Your task to perform on an android device: turn smart compose on in the gmail app Image 0: 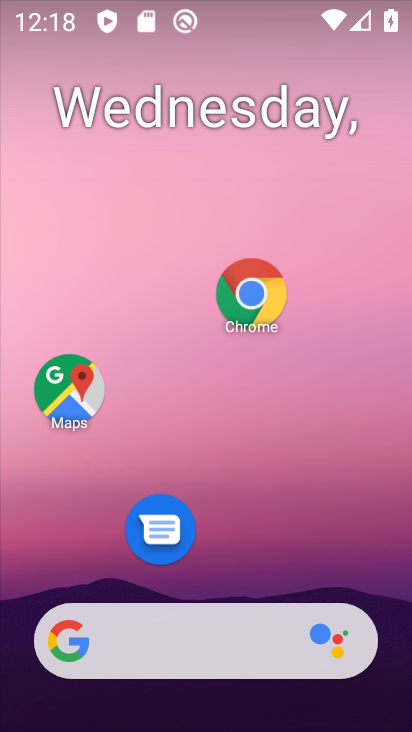
Step 0: drag from (201, 618) to (264, 161)
Your task to perform on an android device: turn smart compose on in the gmail app Image 1: 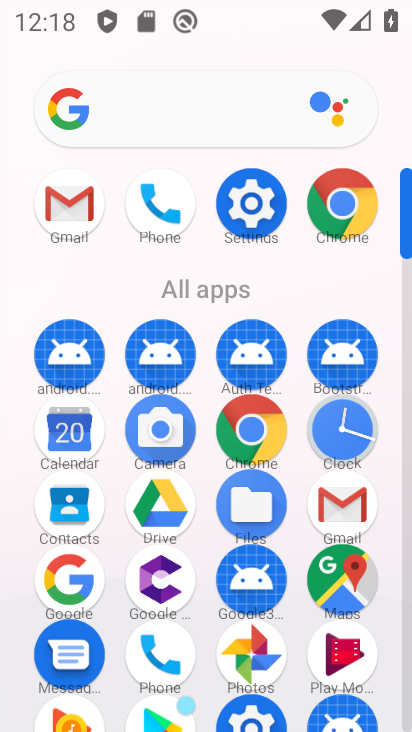
Step 1: click (408, 520)
Your task to perform on an android device: turn smart compose on in the gmail app Image 2: 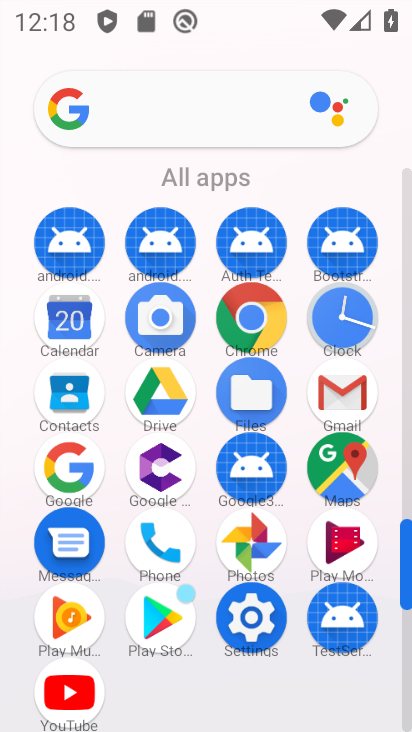
Step 2: click (343, 376)
Your task to perform on an android device: turn smart compose on in the gmail app Image 3: 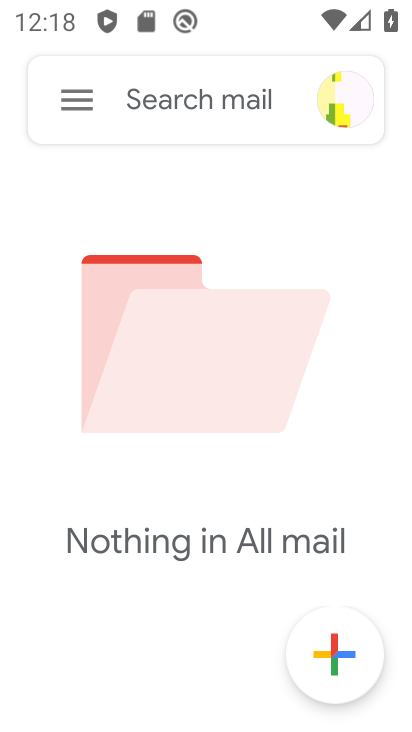
Step 3: click (77, 92)
Your task to perform on an android device: turn smart compose on in the gmail app Image 4: 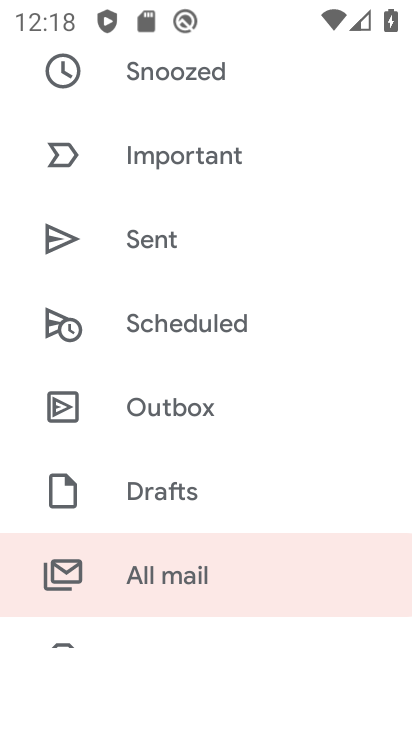
Step 4: drag from (314, 526) to (339, 91)
Your task to perform on an android device: turn smart compose on in the gmail app Image 5: 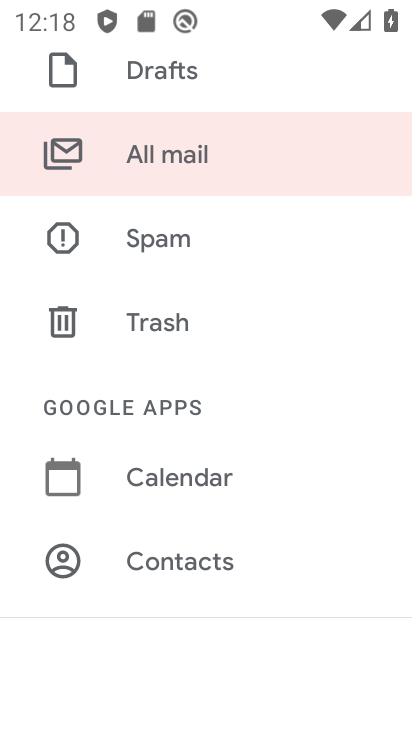
Step 5: drag from (246, 422) to (251, 169)
Your task to perform on an android device: turn smart compose on in the gmail app Image 6: 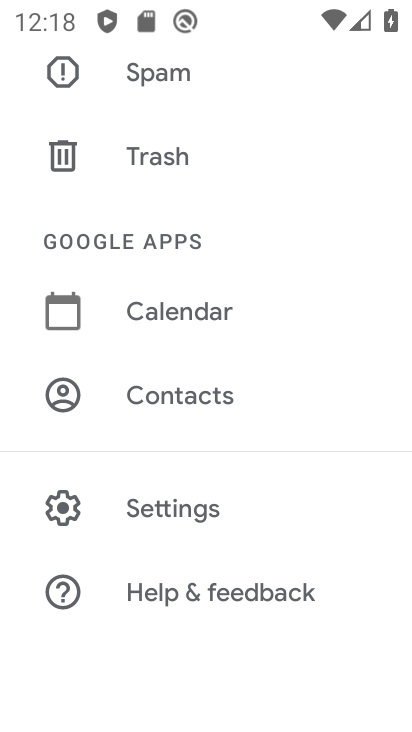
Step 6: click (218, 514)
Your task to perform on an android device: turn smart compose on in the gmail app Image 7: 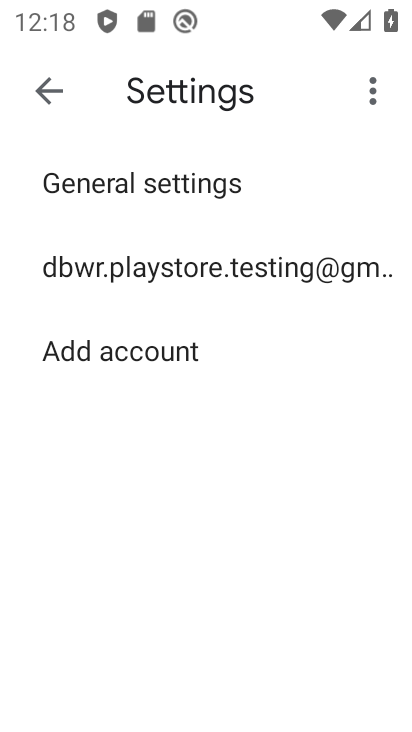
Step 7: click (265, 253)
Your task to perform on an android device: turn smart compose on in the gmail app Image 8: 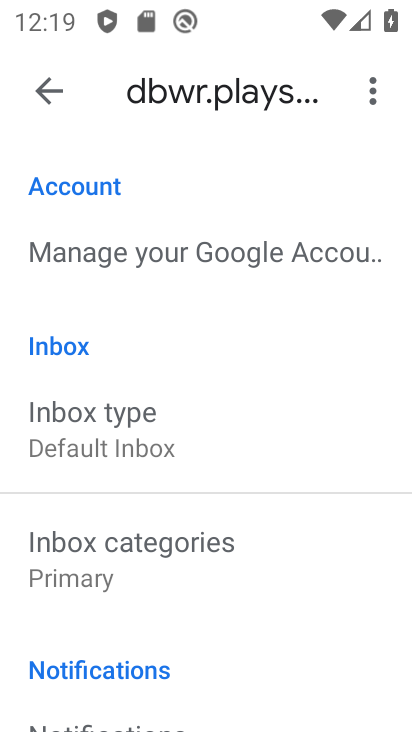
Step 8: task complete